Your task to perform on an android device: empty trash in the gmail app Image 0: 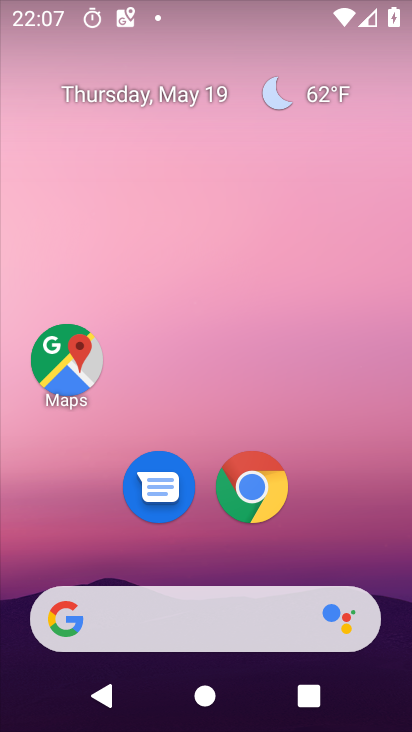
Step 0: drag from (320, 519) to (262, 193)
Your task to perform on an android device: empty trash in the gmail app Image 1: 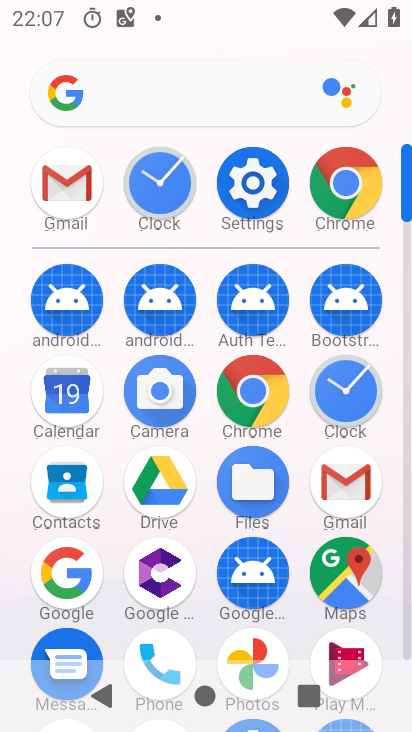
Step 1: click (62, 190)
Your task to perform on an android device: empty trash in the gmail app Image 2: 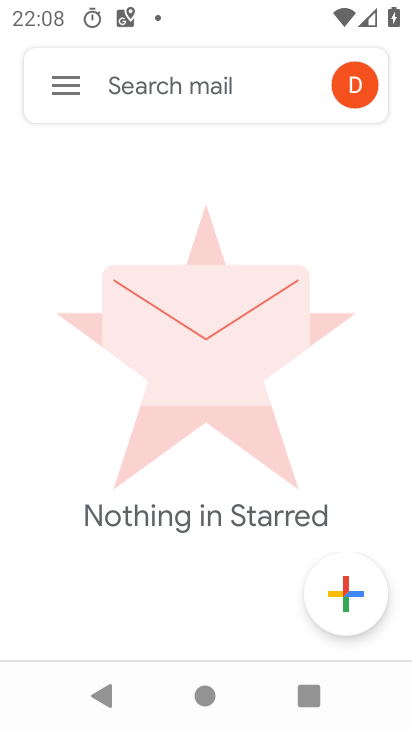
Step 2: click (72, 90)
Your task to perform on an android device: empty trash in the gmail app Image 3: 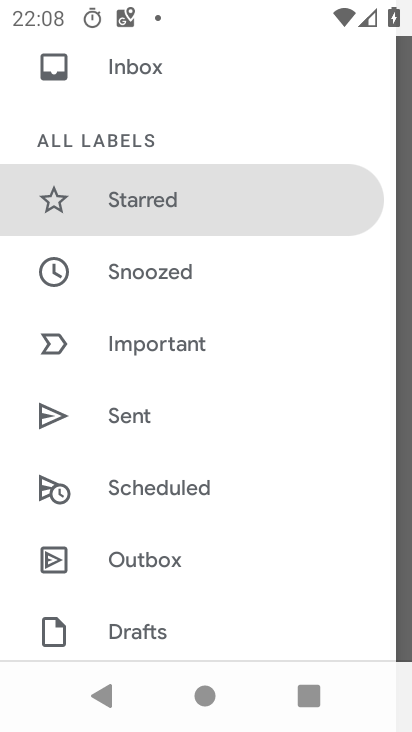
Step 3: drag from (248, 571) to (226, 325)
Your task to perform on an android device: empty trash in the gmail app Image 4: 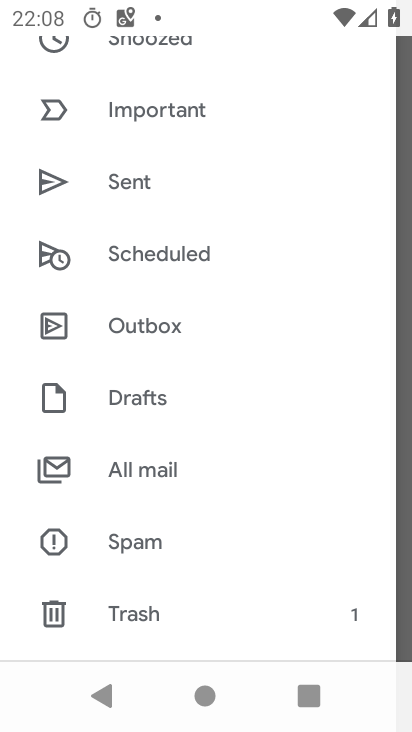
Step 4: click (157, 612)
Your task to perform on an android device: empty trash in the gmail app Image 5: 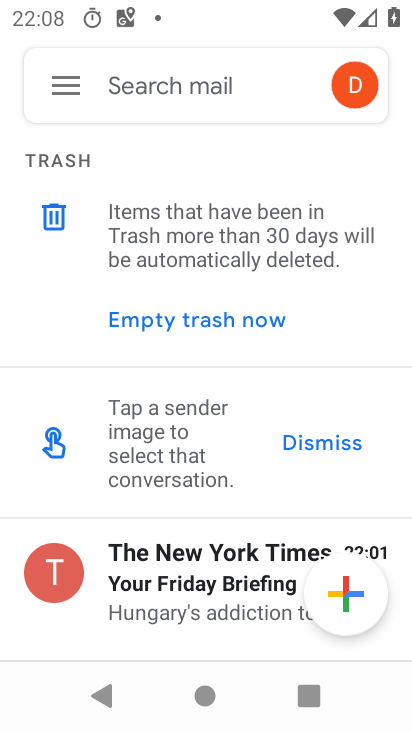
Step 5: click (232, 325)
Your task to perform on an android device: empty trash in the gmail app Image 6: 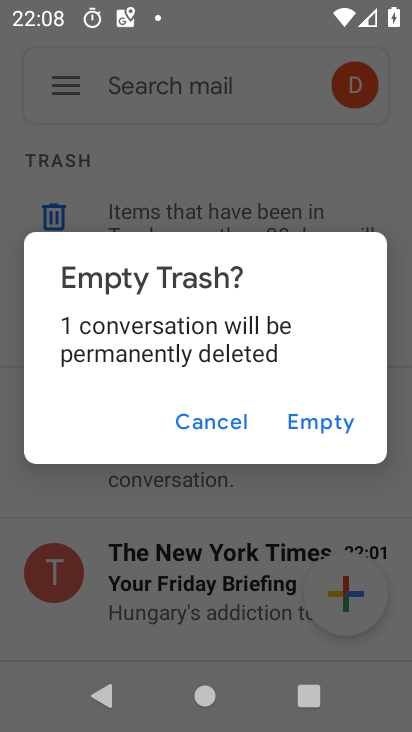
Step 6: click (308, 423)
Your task to perform on an android device: empty trash in the gmail app Image 7: 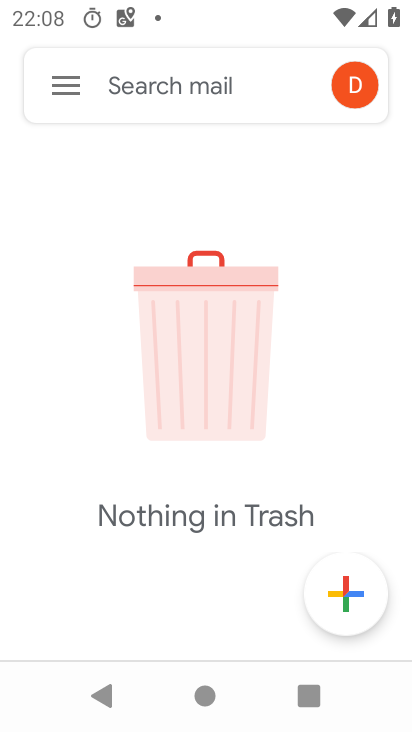
Step 7: task complete